Your task to perform on an android device: empty trash in the gmail app Image 0: 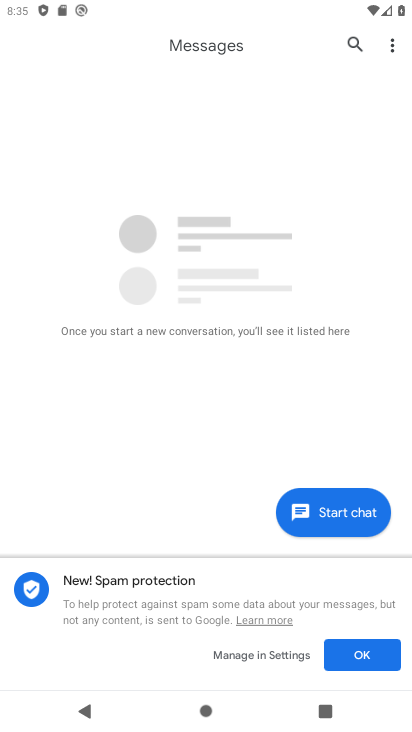
Step 0: press home button
Your task to perform on an android device: empty trash in the gmail app Image 1: 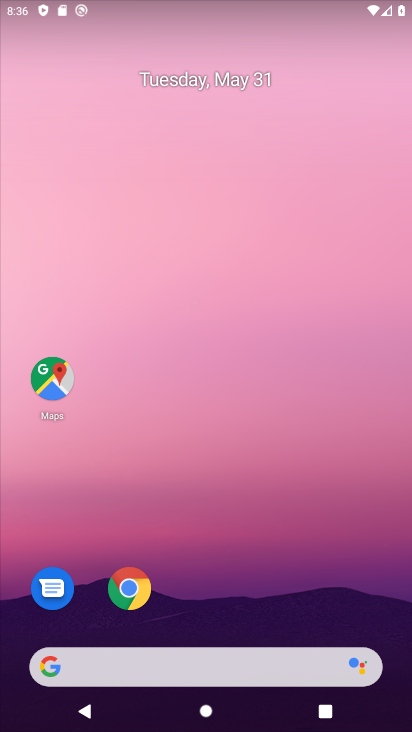
Step 1: drag from (293, 427) to (350, 75)
Your task to perform on an android device: empty trash in the gmail app Image 2: 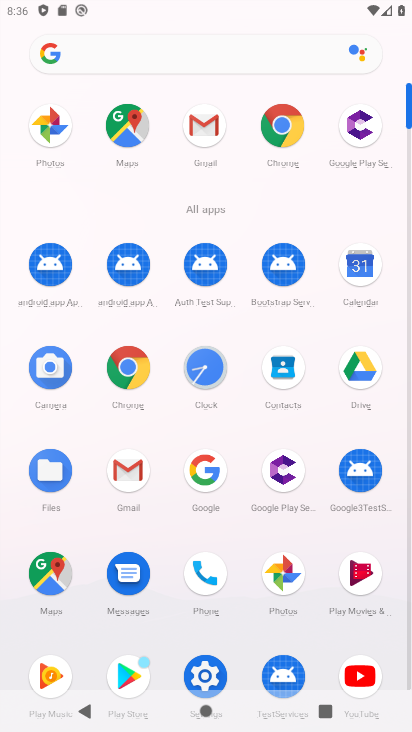
Step 2: click (210, 126)
Your task to perform on an android device: empty trash in the gmail app Image 3: 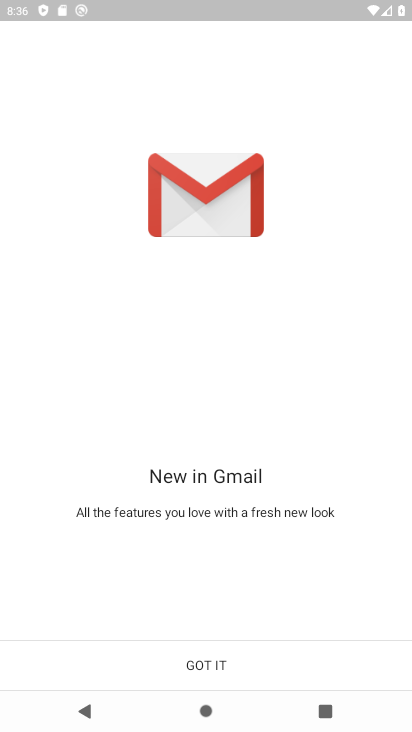
Step 3: click (198, 657)
Your task to perform on an android device: empty trash in the gmail app Image 4: 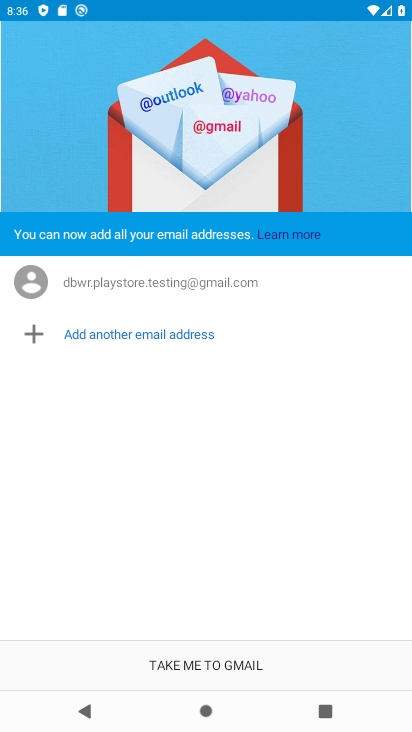
Step 4: click (209, 676)
Your task to perform on an android device: empty trash in the gmail app Image 5: 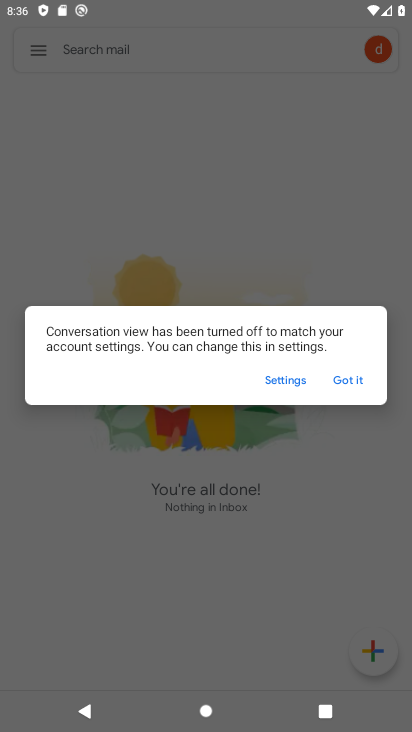
Step 5: click (349, 377)
Your task to perform on an android device: empty trash in the gmail app Image 6: 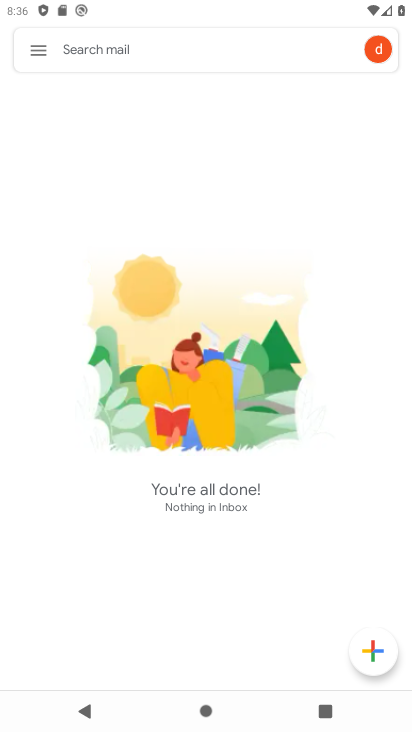
Step 6: click (38, 49)
Your task to perform on an android device: empty trash in the gmail app Image 7: 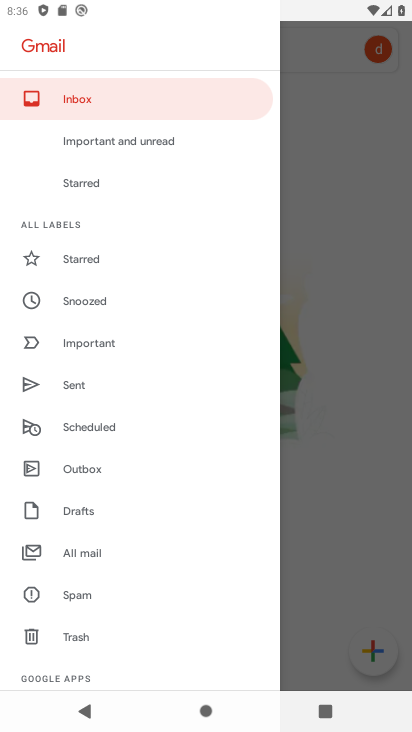
Step 7: click (121, 636)
Your task to perform on an android device: empty trash in the gmail app Image 8: 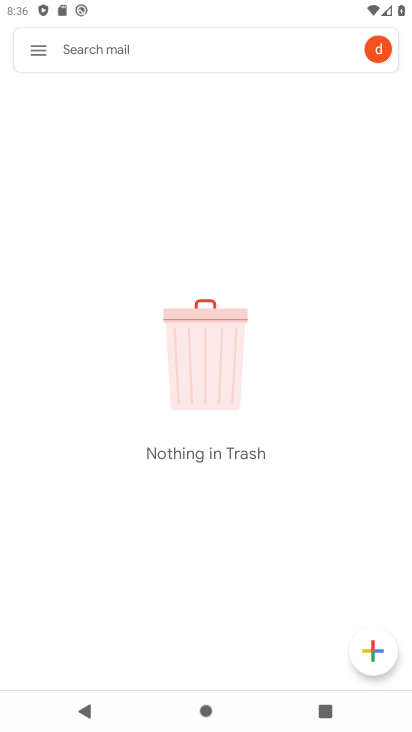
Step 8: task complete